Your task to perform on an android device: turn pop-ups off in chrome Image 0: 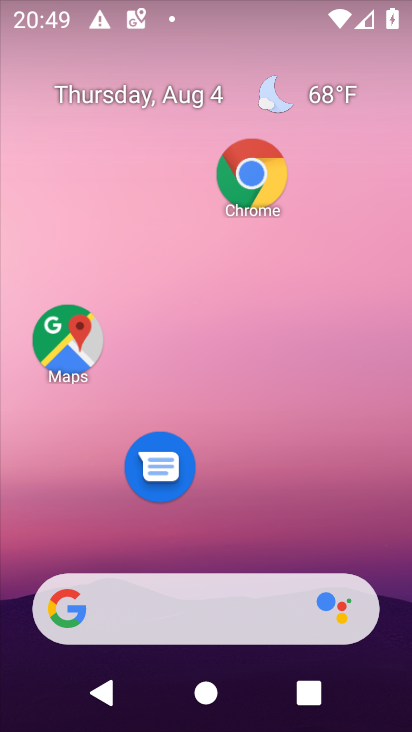
Step 0: press home button
Your task to perform on an android device: turn pop-ups off in chrome Image 1: 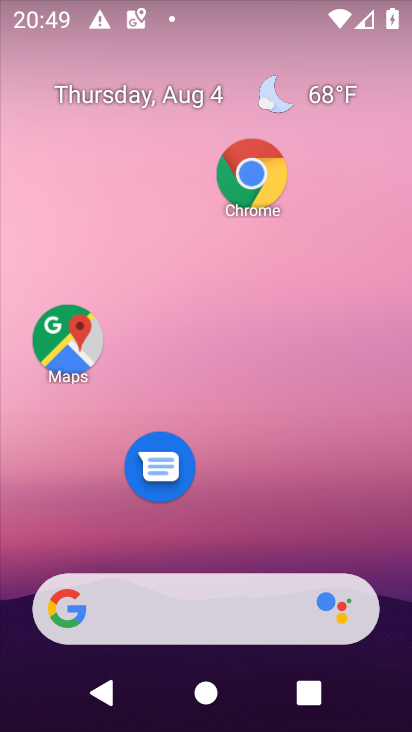
Step 1: click (277, 173)
Your task to perform on an android device: turn pop-ups off in chrome Image 2: 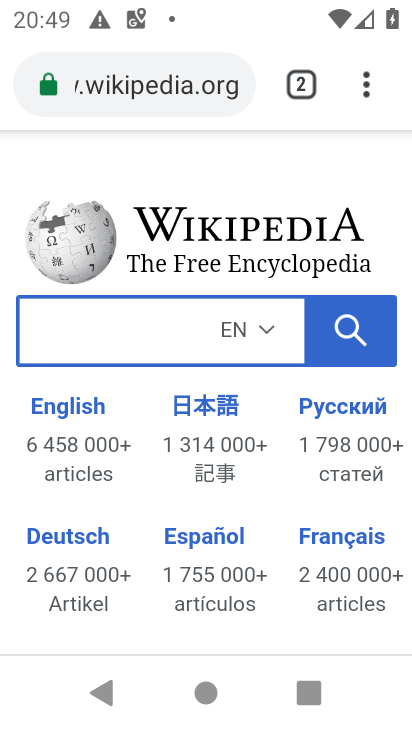
Step 2: drag from (372, 83) to (174, 539)
Your task to perform on an android device: turn pop-ups off in chrome Image 3: 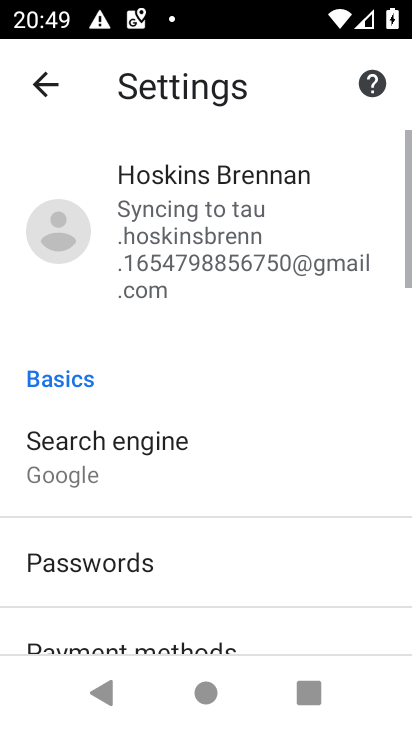
Step 3: drag from (176, 543) to (112, 11)
Your task to perform on an android device: turn pop-ups off in chrome Image 4: 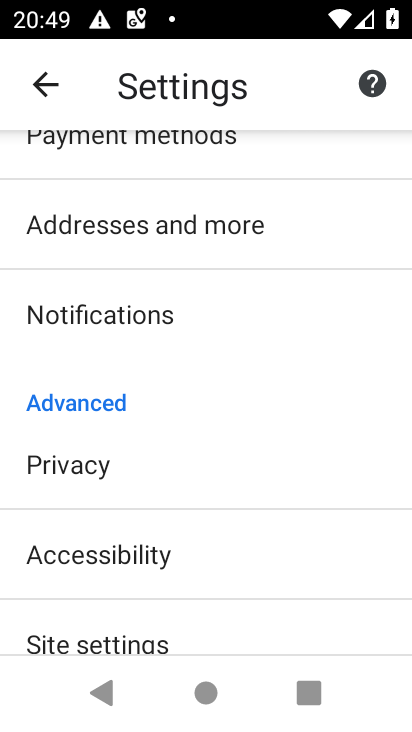
Step 4: drag from (211, 570) to (239, 250)
Your task to perform on an android device: turn pop-ups off in chrome Image 5: 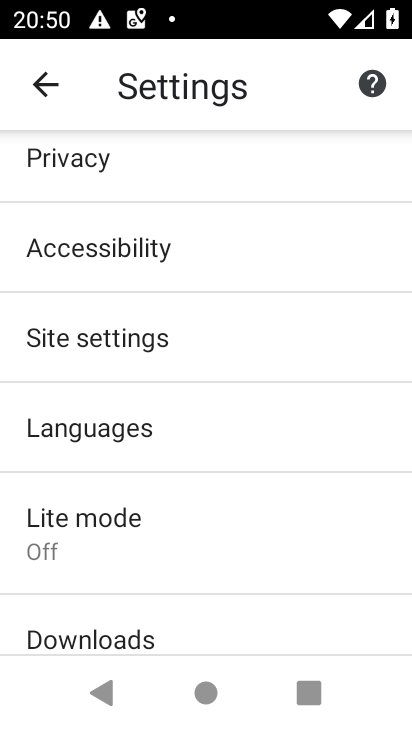
Step 5: click (190, 348)
Your task to perform on an android device: turn pop-ups off in chrome Image 6: 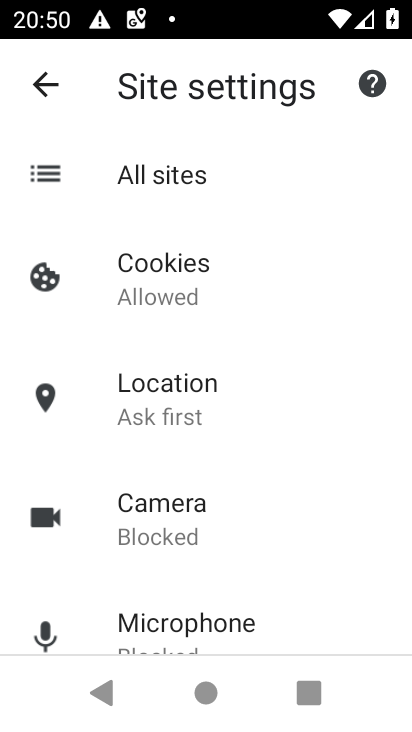
Step 6: drag from (201, 590) to (252, 248)
Your task to perform on an android device: turn pop-ups off in chrome Image 7: 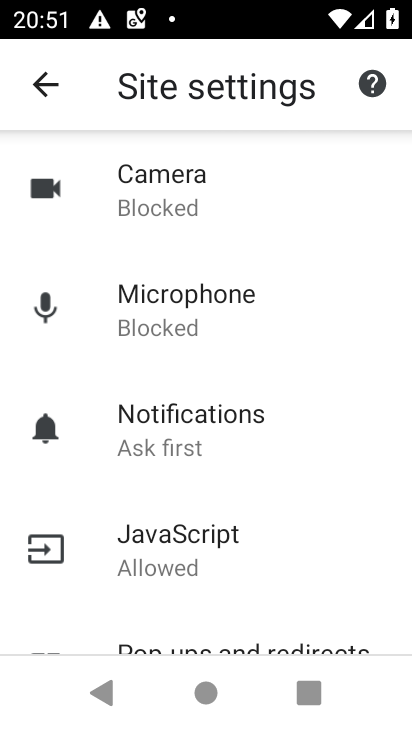
Step 7: drag from (234, 583) to (215, 358)
Your task to perform on an android device: turn pop-ups off in chrome Image 8: 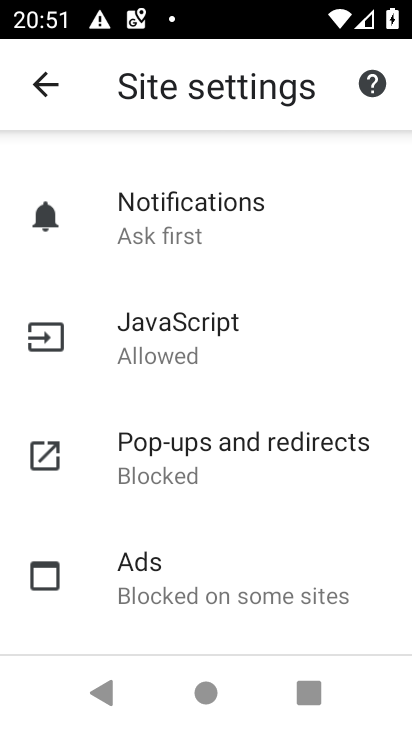
Step 8: click (233, 421)
Your task to perform on an android device: turn pop-ups off in chrome Image 9: 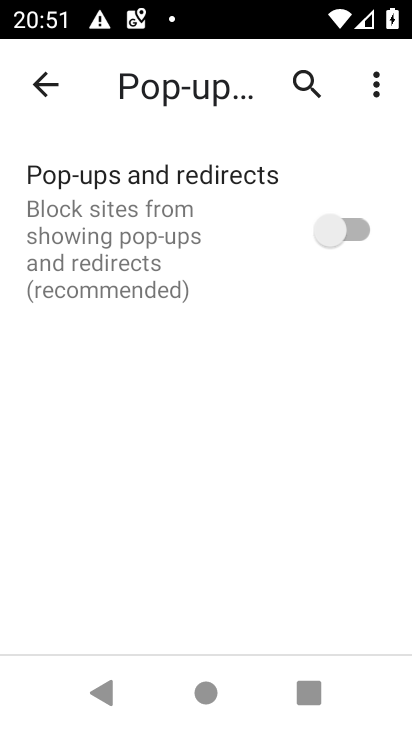
Step 9: task complete